Your task to perform on an android device: change notifications settings Image 0: 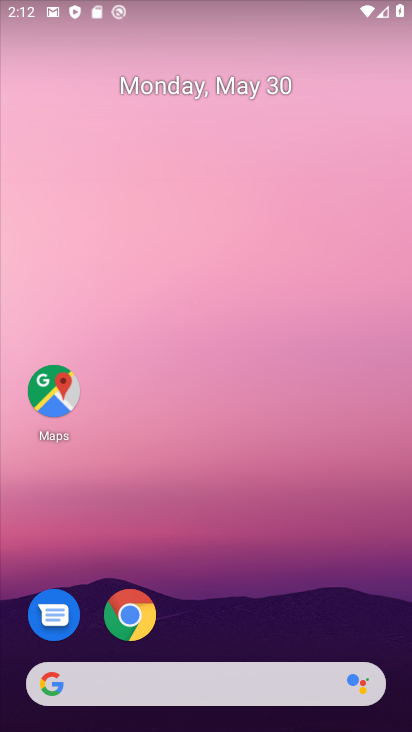
Step 0: drag from (250, 610) to (290, 23)
Your task to perform on an android device: change notifications settings Image 1: 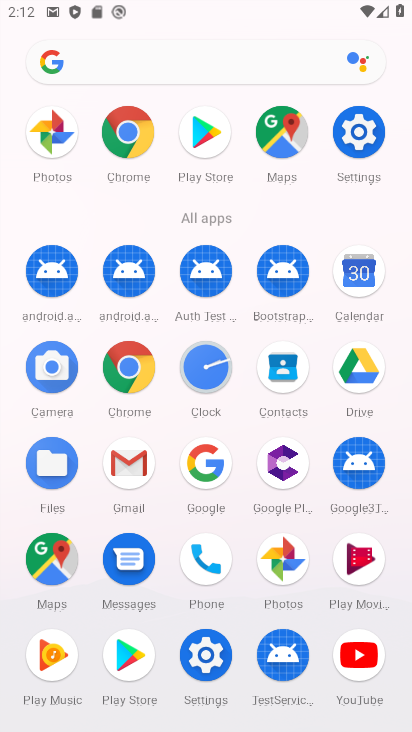
Step 1: click (359, 131)
Your task to perform on an android device: change notifications settings Image 2: 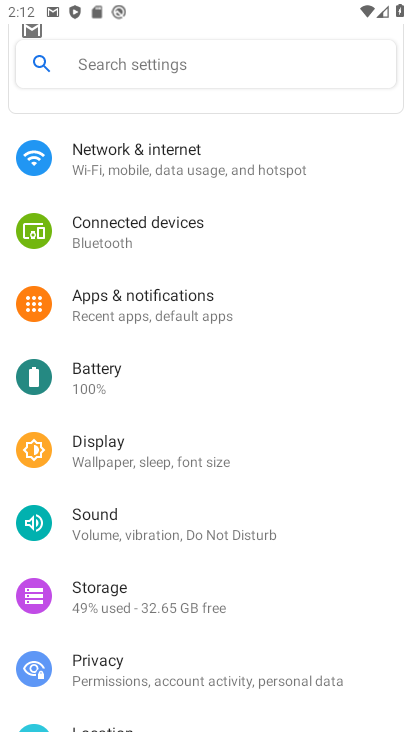
Step 2: click (204, 307)
Your task to perform on an android device: change notifications settings Image 3: 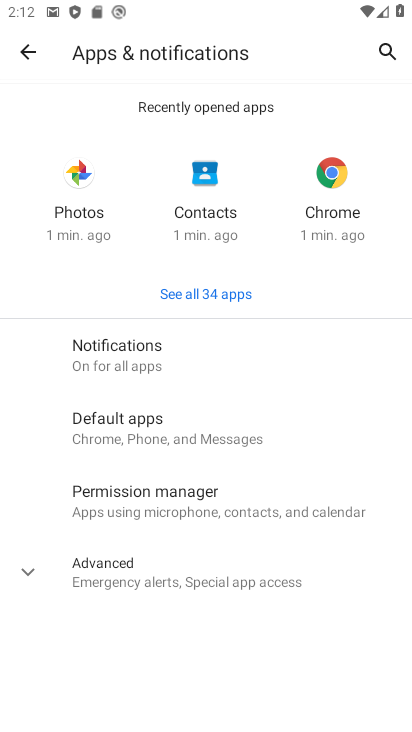
Step 3: click (193, 350)
Your task to perform on an android device: change notifications settings Image 4: 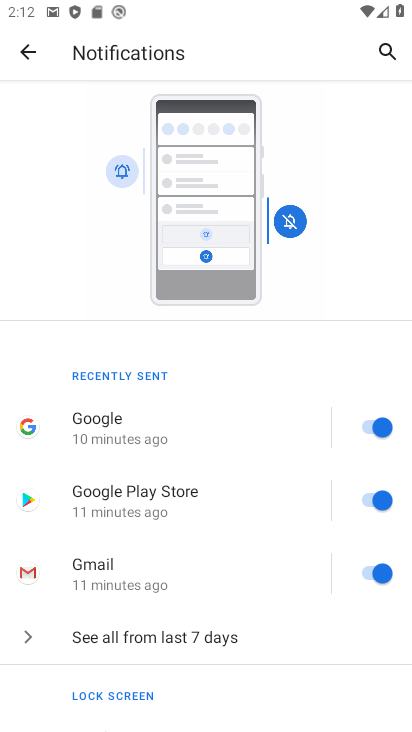
Step 4: drag from (273, 540) to (261, 245)
Your task to perform on an android device: change notifications settings Image 5: 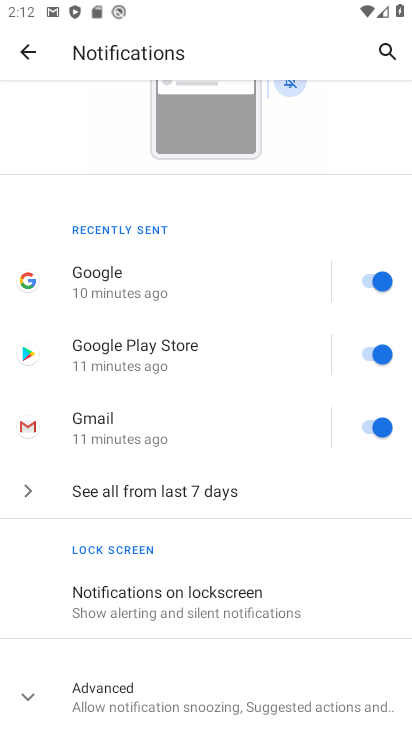
Step 5: click (236, 492)
Your task to perform on an android device: change notifications settings Image 6: 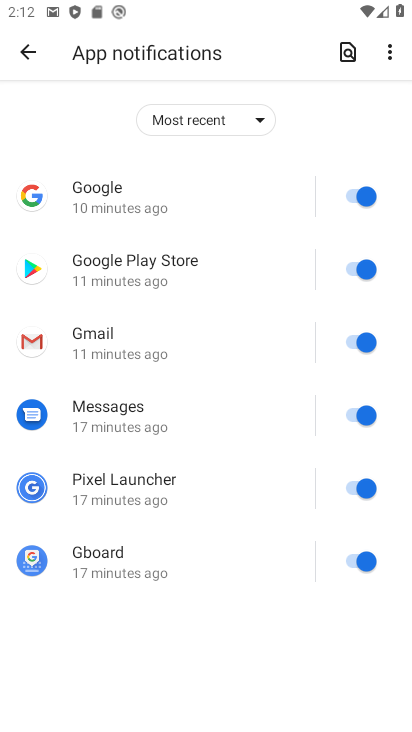
Step 6: click (358, 196)
Your task to perform on an android device: change notifications settings Image 7: 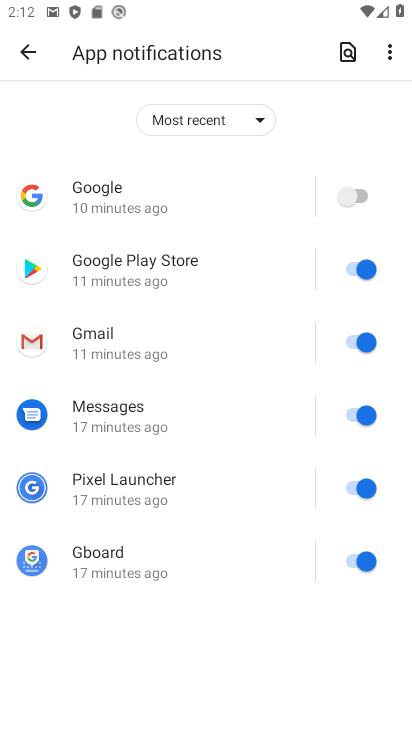
Step 7: click (360, 269)
Your task to perform on an android device: change notifications settings Image 8: 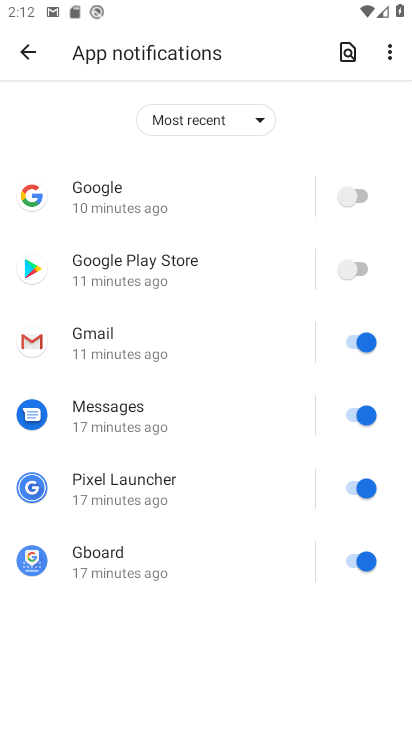
Step 8: click (355, 336)
Your task to perform on an android device: change notifications settings Image 9: 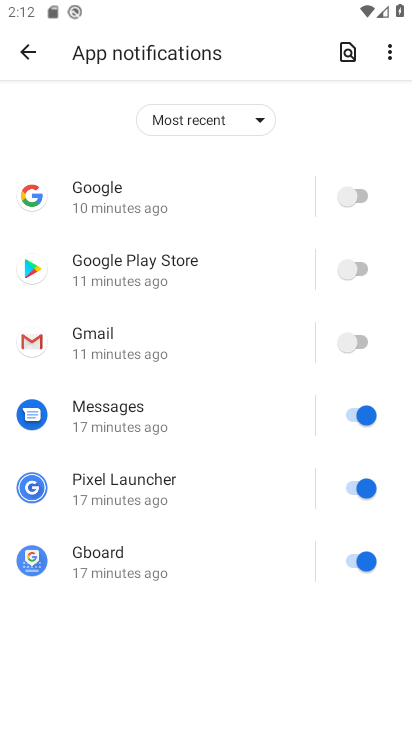
Step 9: click (360, 414)
Your task to perform on an android device: change notifications settings Image 10: 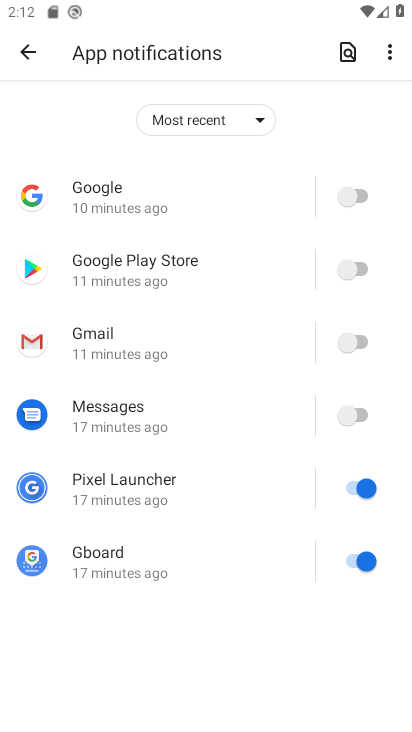
Step 10: click (360, 490)
Your task to perform on an android device: change notifications settings Image 11: 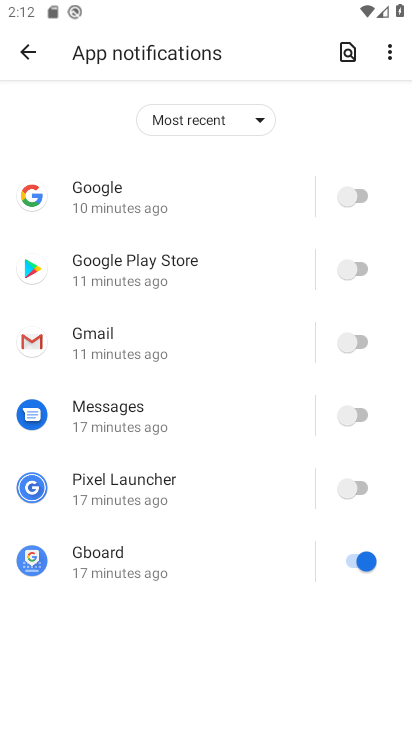
Step 11: click (360, 555)
Your task to perform on an android device: change notifications settings Image 12: 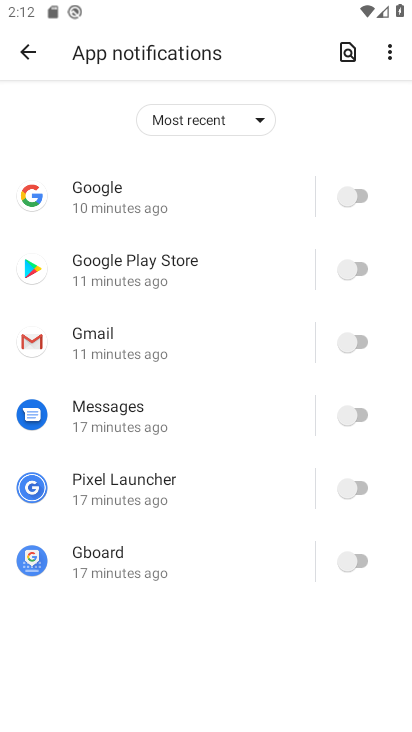
Step 12: task complete